Your task to perform on an android device: turn off location Image 0: 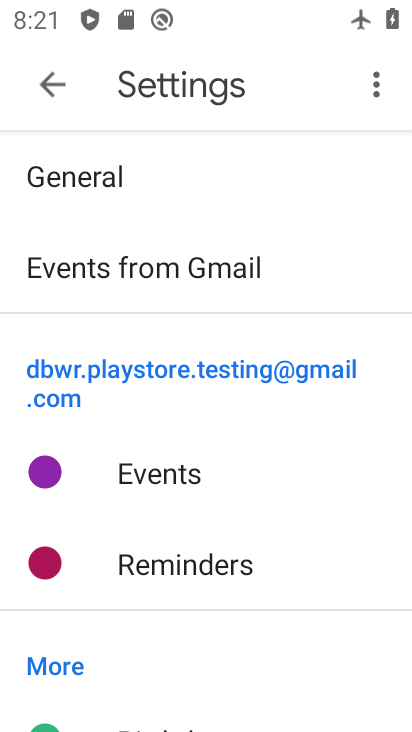
Step 0: press back button
Your task to perform on an android device: turn off location Image 1: 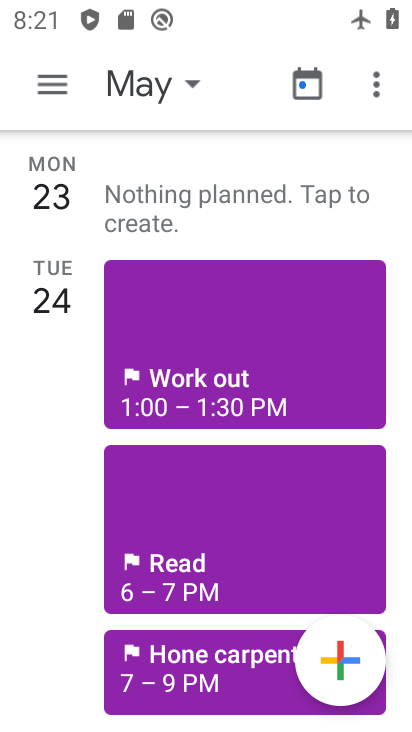
Step 1: press home button
Your task to perform on an android device: turn off location Image 2: 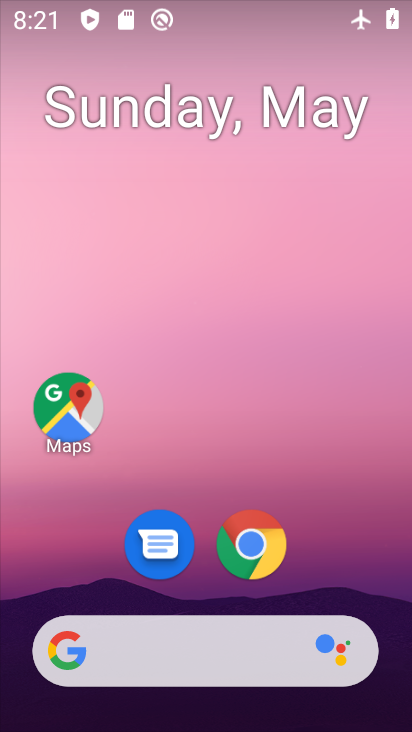
Step 2: drag from (328, 563) to (251, 21)
Your task to perform on an android device: turn off location Image 3: 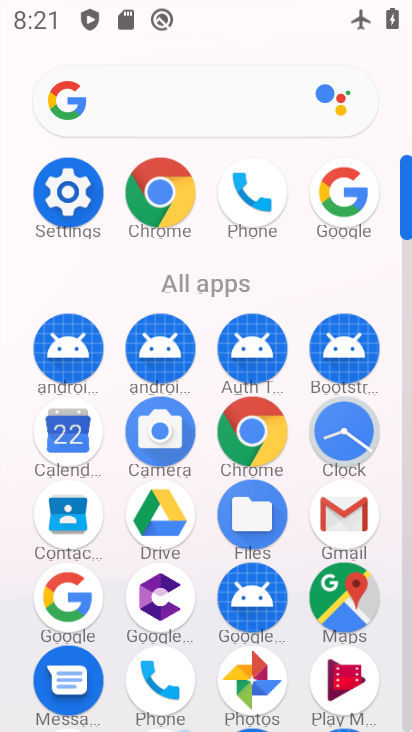
Step 3: click (66, 185)
Your task to perform on an android device: turn off location Image 4: 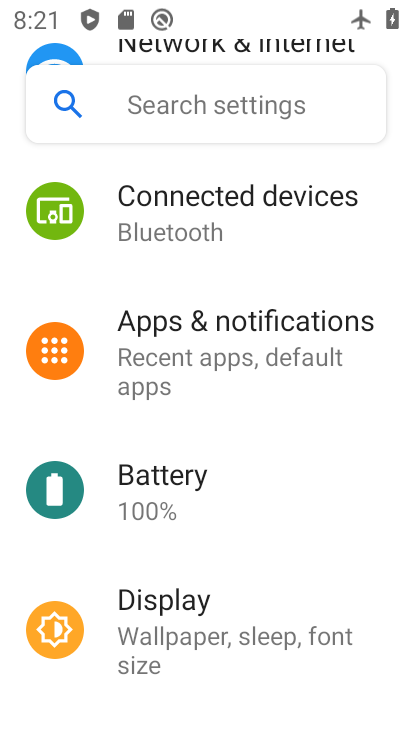
Step 4: drag from (324, 263) to (318, 593)
Your task to perform on an android device: turn off location Image 5: 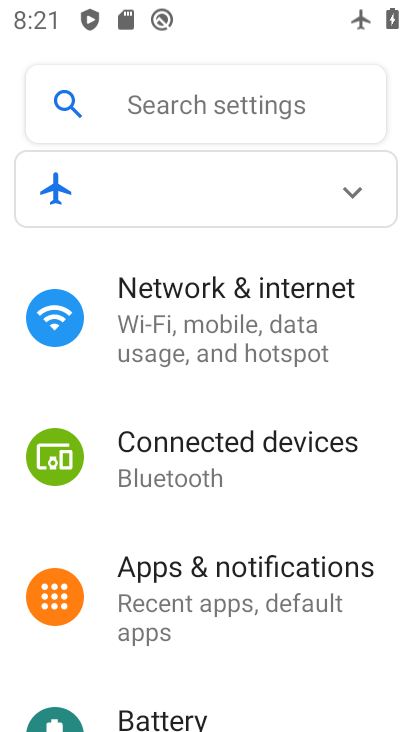
Step 5: drag from (318, 592) to (309, 275)
Your task to perform on an android device: turn off location Image 6: 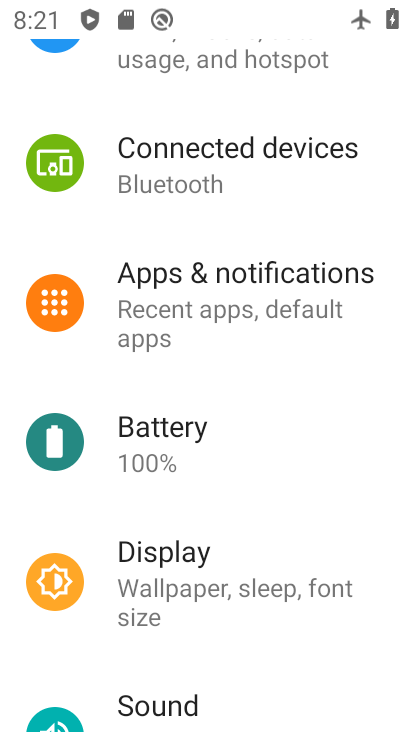
Step 6: drag from (309, 597) to (338, 196)
Your task to perform on an android device: turn off location Image 7: 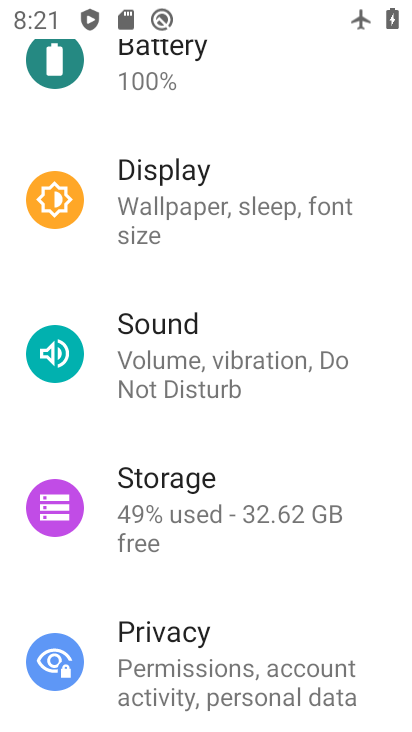
Step 7: drag from (274, 538) to (283, 155)
Your task to perform on an android device: turn off location Image 8: 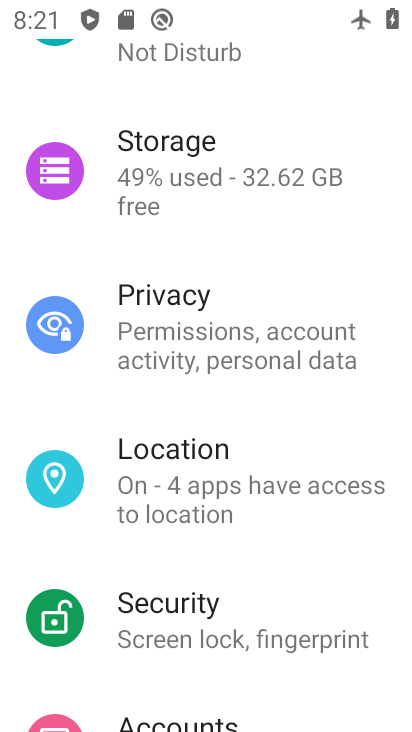
Step 8: click (190, 492)
Your task to perform on an android device: turn off location Image 9: 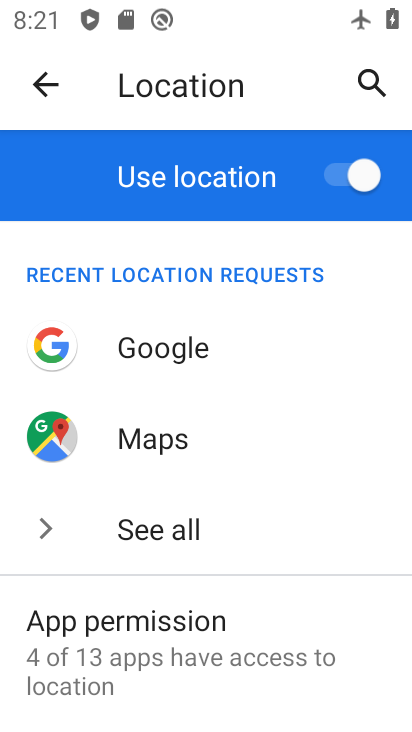
Step 9: click (344, 166)
Your task to perform on an android device: turn off location Image 10: 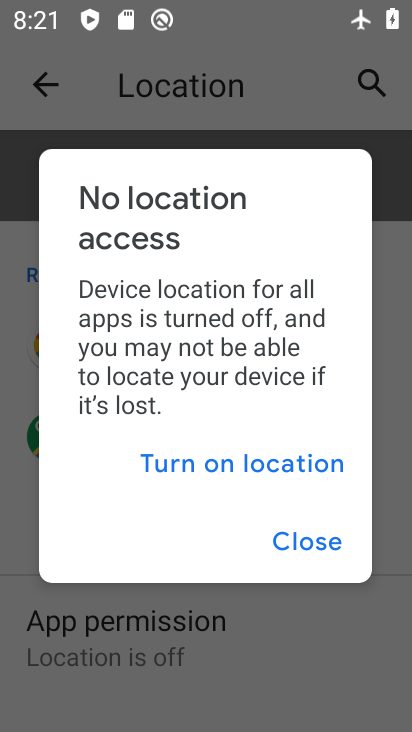
Step 10: click (309, 539)
Your task to perform on an android device: turn off location Image 11: 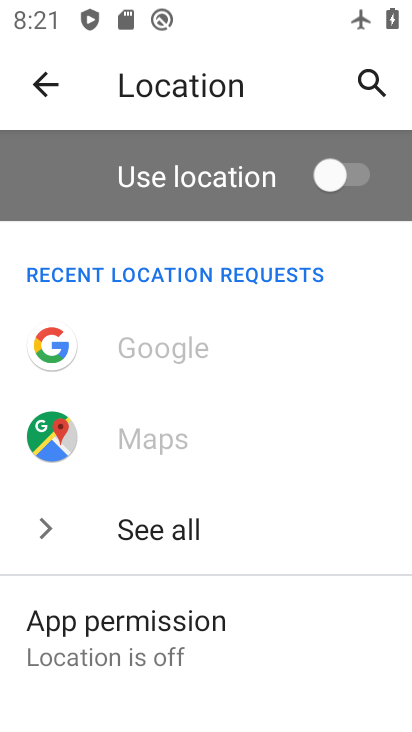
Step 11: task complete